Your task to perform on an android device: turn on notifications settings in the gmail app Image 0: 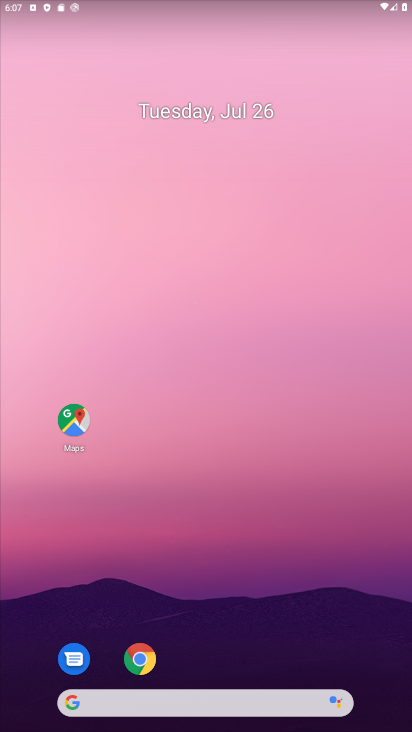
Step 0: drag from (289, 603) to (314, 210)
Your task to perform on an android device: turn on notifications settings in the gmail app Image 1: 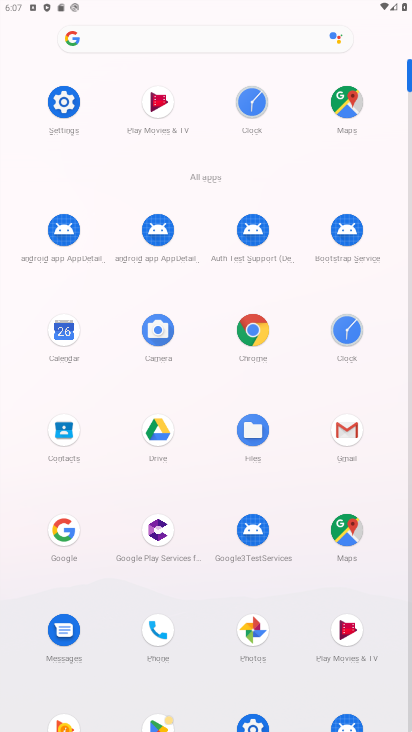
Step 1: click (347, 429)
Your task to perform on an android device: turn on notifications settings in the gmail app Image 2: 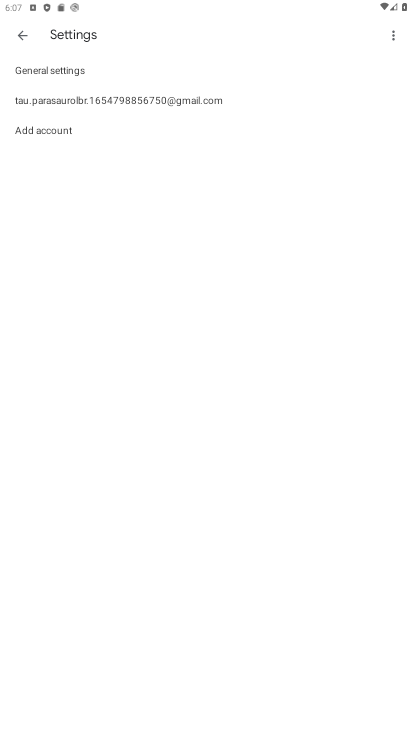
Step 2: task complete